Your task to perform on an android device: read, delete, or share a saved page in the chrome app Image 0: 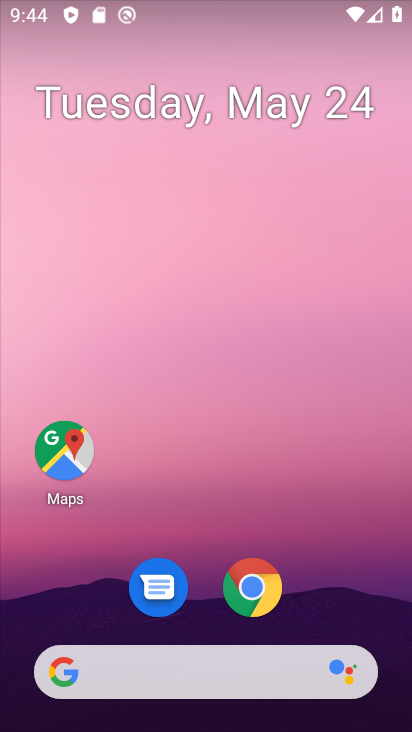
Step 0: click (359, 571)
Your task to perform on an android device: read, delete, or share a saved page in the chrome app Image 1: 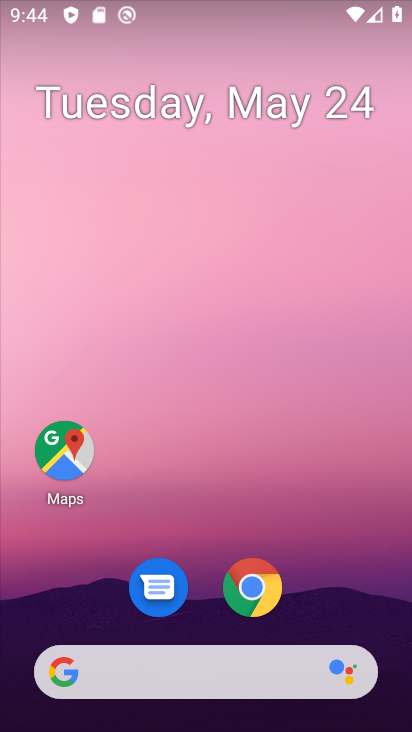
Step 1: click (277, 585)
Your task to perform on an android device: read, delete, or share a saved page in the chrome app Image 2: 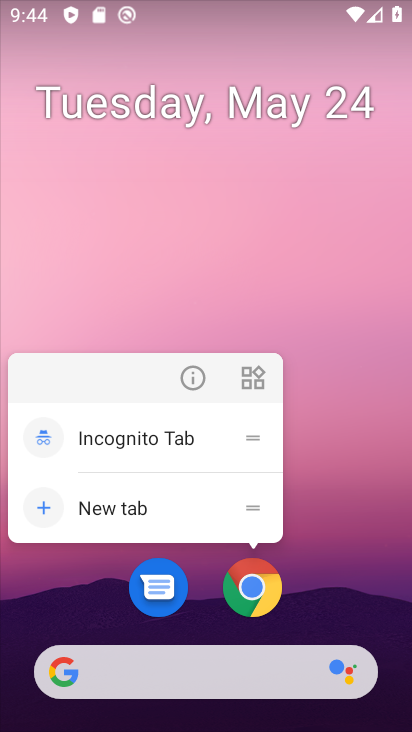
Step 2: click (191, 373)
Your task to perform on an android device: read, delete, or share a saved page in the chrome app Image 3: 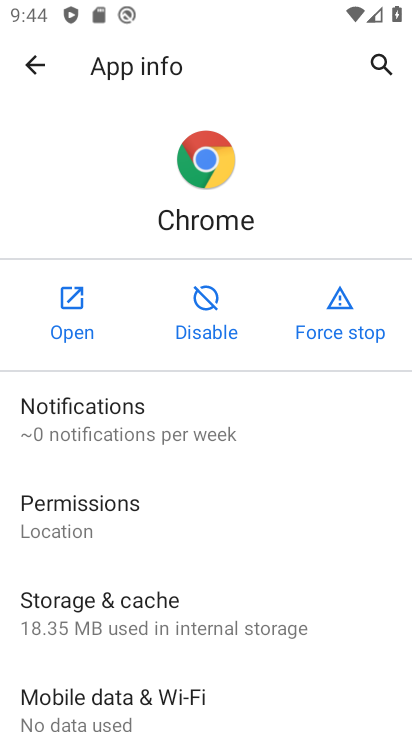
Step 3: press home button
Your task to perform on an android device: read, delete, or share a saved page in the chrome app Image 4: 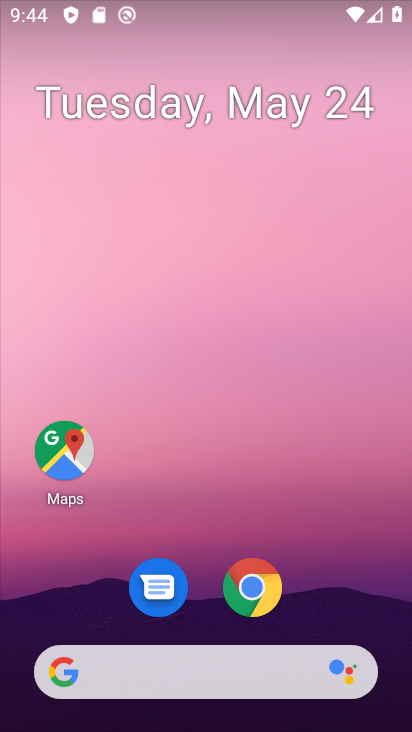
Step 4: click (263, 574)
Your task to perform on an android device: read, delete, or share a saved page in the chrome app Image 5: 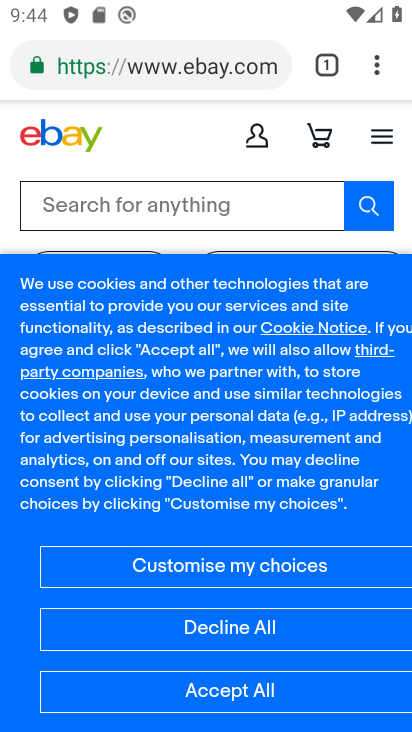
Step 5: drag from (368, 47) to (183, 424)
Your task to perform on an android device: read, delete, or share a saved page in the chrome app Image 6: 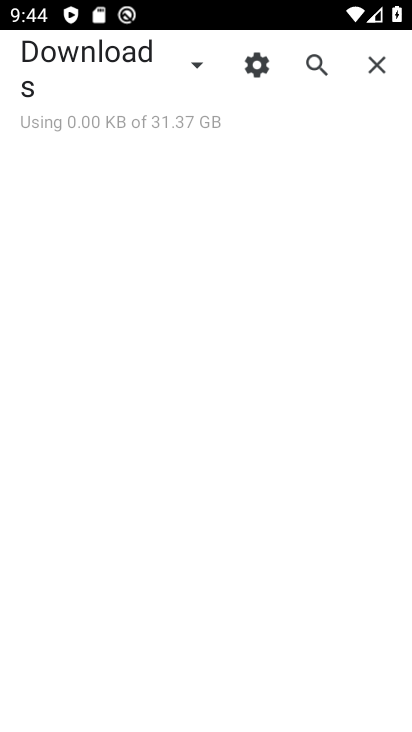
Step 6: click (206, 59)
Your task to perform on an android device: read, delete, or share a saved page in the chrome app Image 7: 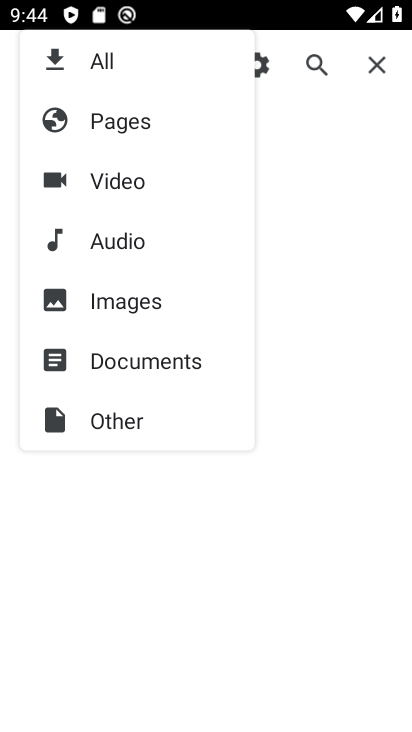
Step 7: click (121, 122)
Your task to perform on an android device: read, delete, or share a saved page in the chrome app Image 8: 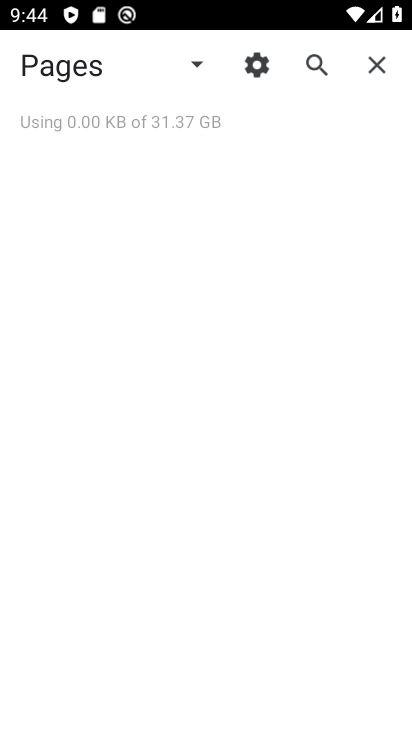
Step 8: task complete